Your task to perform on an android device: Open internet settings Image 0: 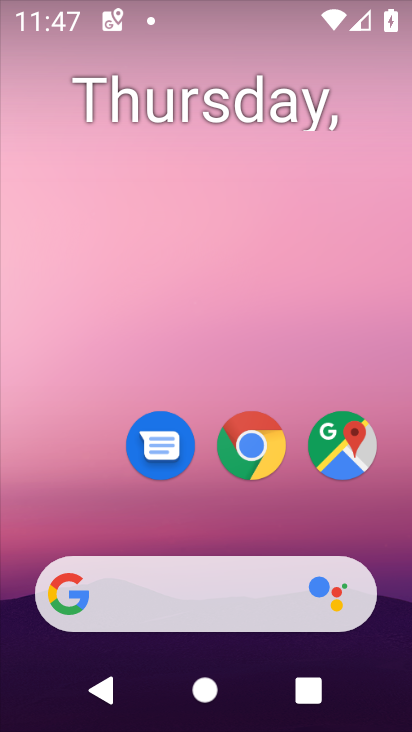
Step 0: drag from (278, 677) to (175, 133)
Your task to perform on an android device: Open internet settings Image 1: 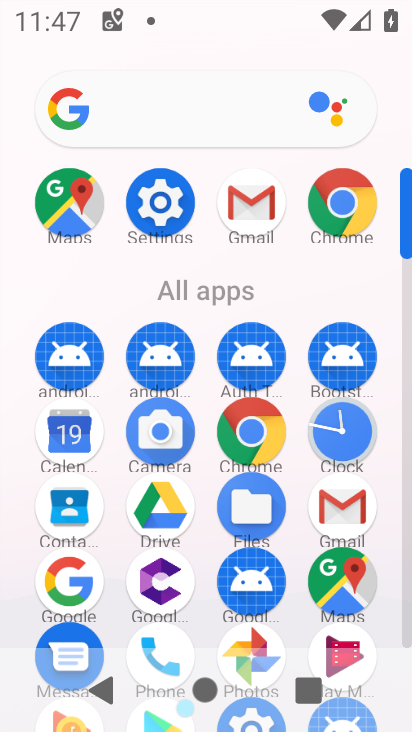
Step 1: click (158, 208)
Your task to perform on an android device: Open internet settings Image 2: 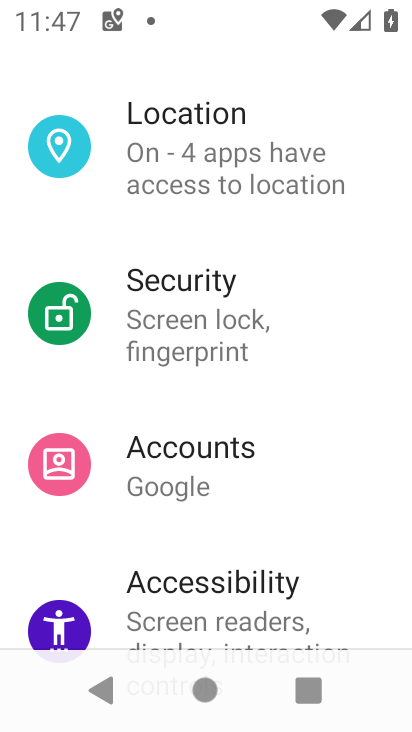
Step 2: drag from (199, 164) to (255, 525)
Your task to perform on an android device: Open internet settings Image 3: 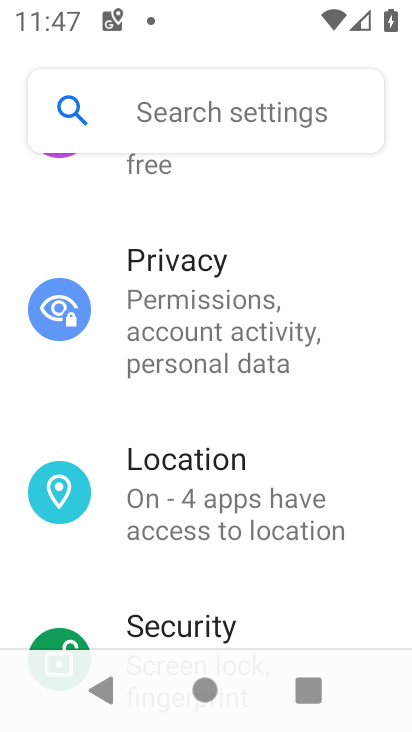
Step 3: drag from (210, 225) to (221, 547)
Your task to perform on an android device: Open internet settings Image 4: 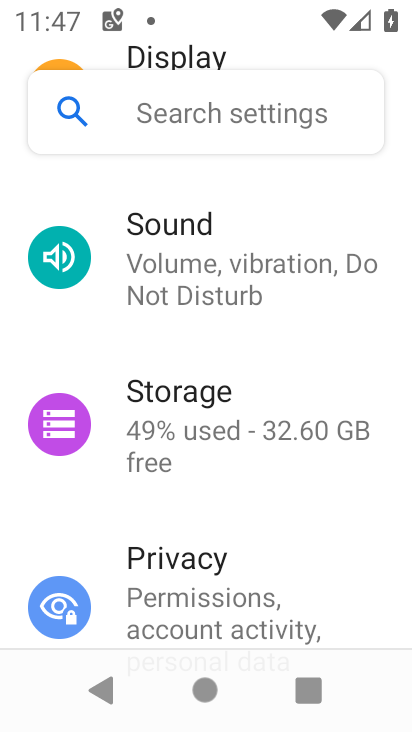
Step 4: drag from (197, 276) to (267, 558)
Your task to perform on an android device: Open internet settings Image 5: 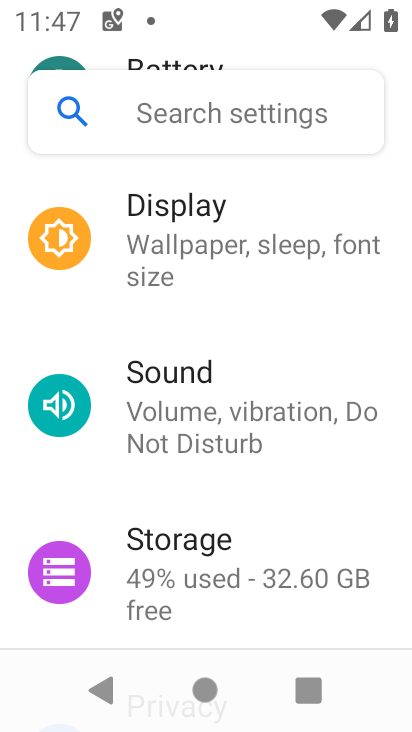
Step 5: drag from (213, 268) to (271, 552)
Your task to perform on an android device: Open internet settings Image 6: 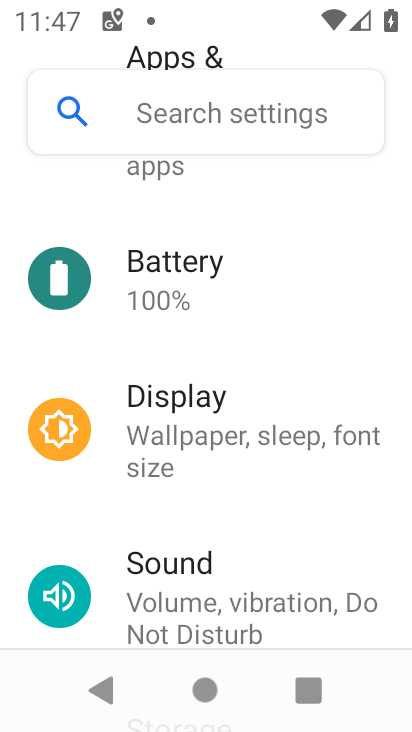
Step 6: drag from (220, 237) to (359, 655)
Your task to perform on an android device: Open internet settings Image 7: 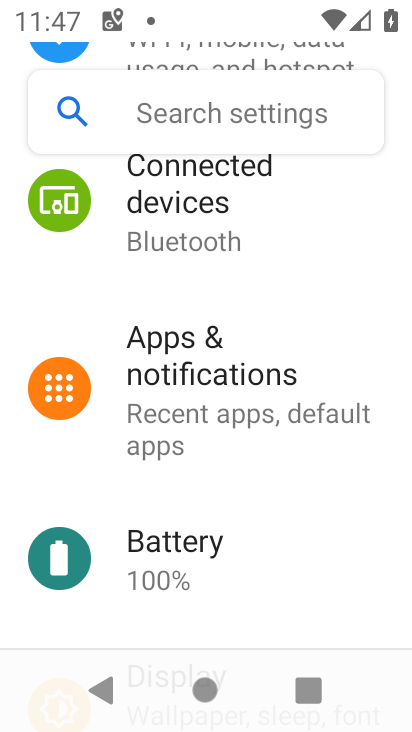
Step 7: drag from (244, 402) to (252, 615)
Your task to perform on an android device: Open internet settings Image 8: 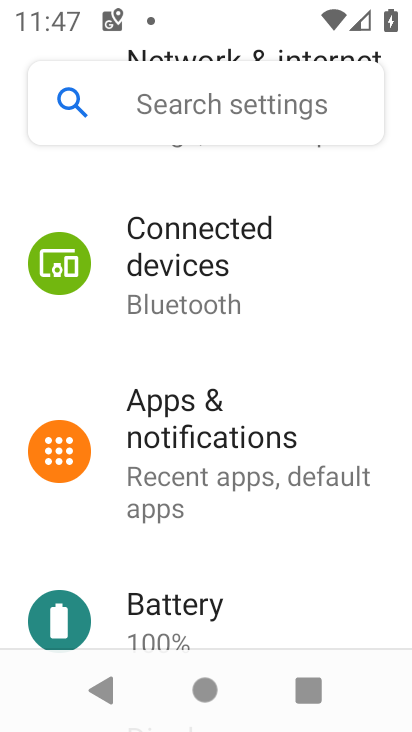
Step 8: drag from (185, 240) to (274, 578)
Your task to perform on an android device: Open internet settings Image 9: 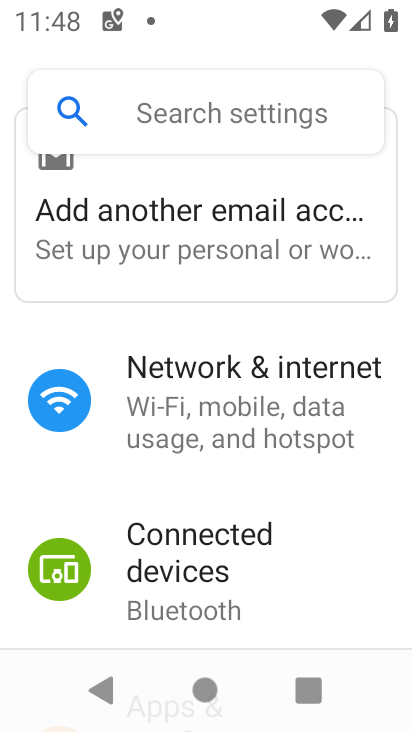
Step 9: click (213, 401)
Your task to perform on an android device: Open internet settings Image 10: 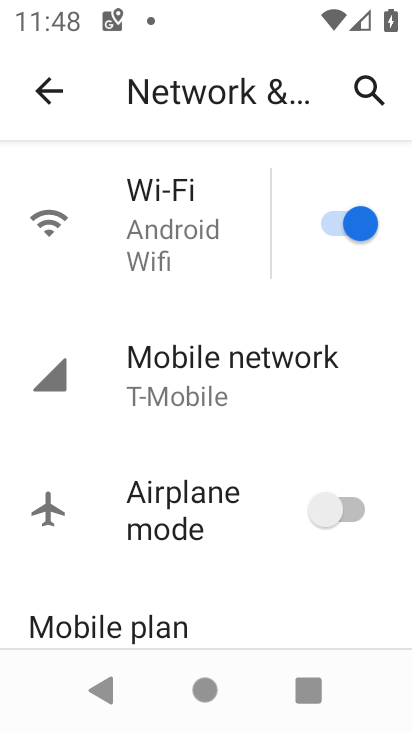
Step 10: task complete